Your task to perform on an android device: Go to Yahoo.com Image 0: 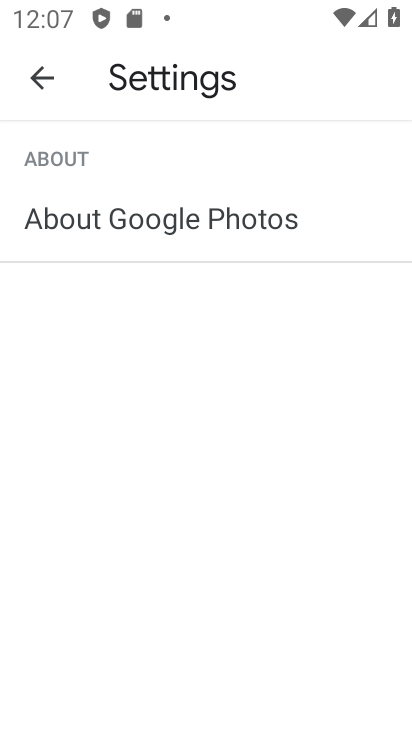
Step 0: press home button
Your task to perform on an android device: Go to Yahoo.com Image 1: 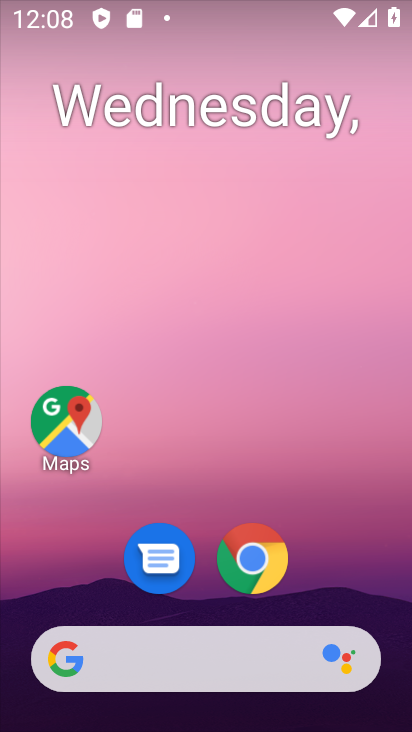
Step 1: drag from (229, 608) to (290, 175)
Your task to perform on an android device: Go to Yahoo.com Image 2: 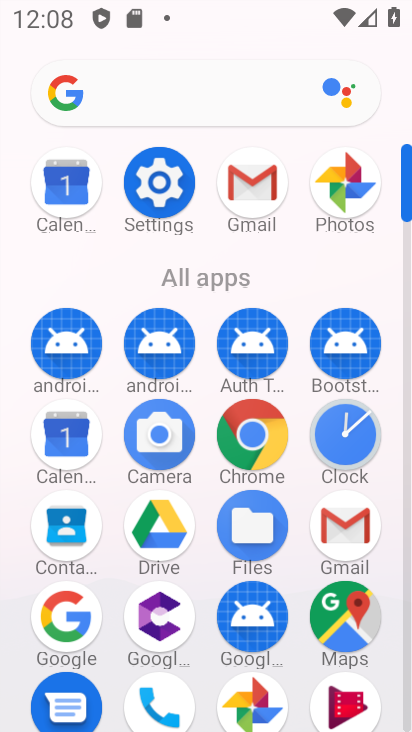
Step 2: click (266, 460)
Your task to perform on an android device: Go to Yahoo.com Image 3: 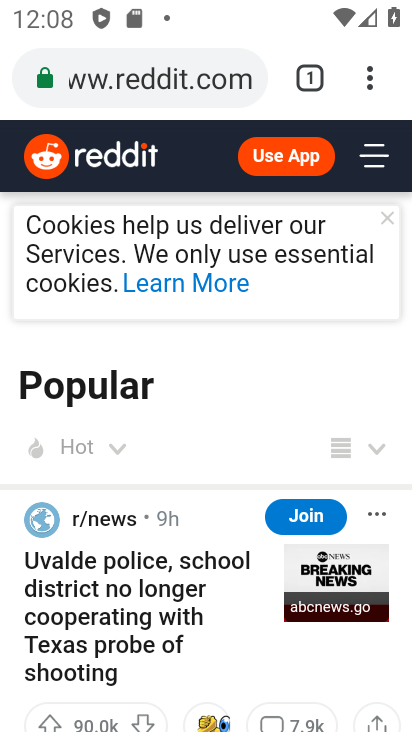
Step 3: click (199, 87)
Your task to perform on an android device: Go to Yahoo.com Image 4: 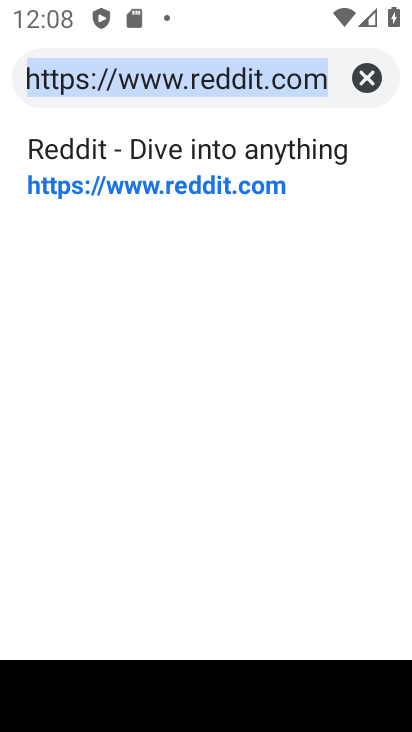
Step 4: type "yahoo"
Your task to perform on an android device: Go to Yahoo.com Image 5: 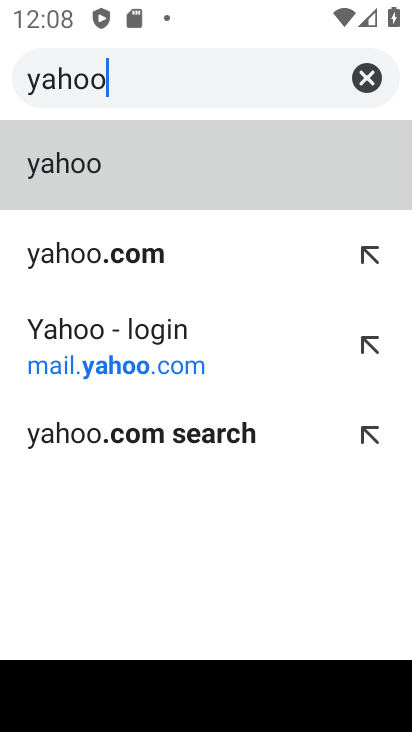
Step 5: click (185, 346)
Your task to perform on an android device: Go to Yahoo.com Image 6: 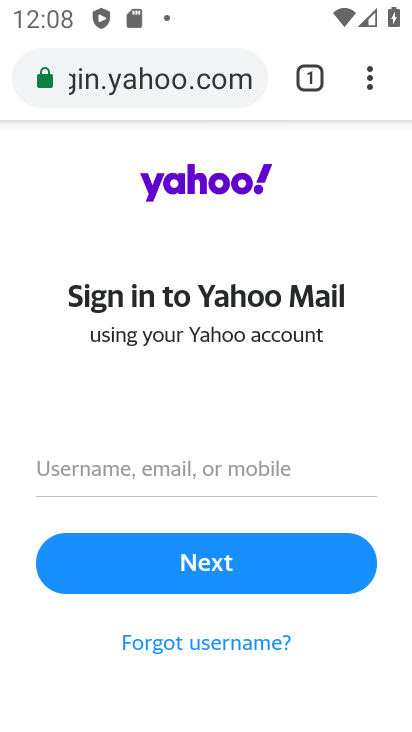
Step 6: task complete